Your task to perform on an android device: Open maps Image 0: 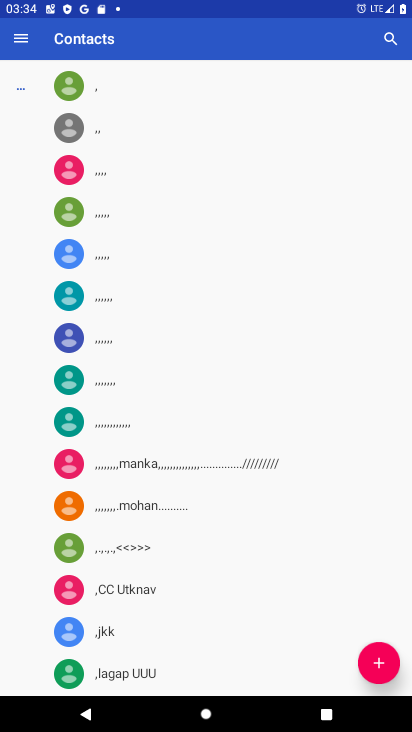
Step 0: press home button
Your task to perform on an android device: Open maps Image 1: 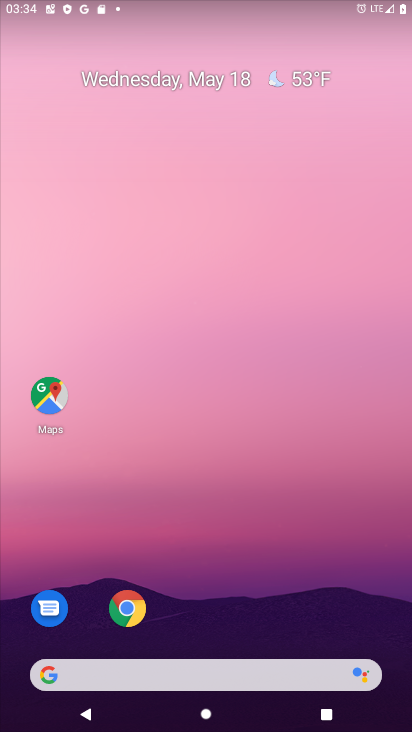
Step 1: click (49, 392)
Your task to perform on an android device: Open maps Image 2: 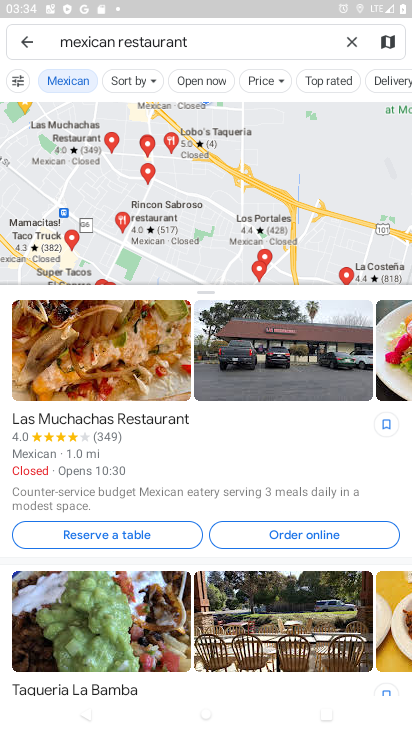
Step 2: task complete